Your task to perform on an android device: Open accessibility settings Image 0: 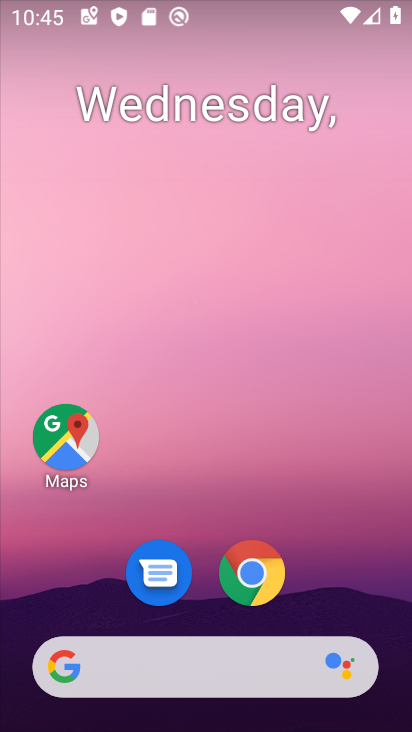
Step 0: drag from (210, 522) to (242, 23)
Your task to perform on an android device: Open accessibility settings Image 1: 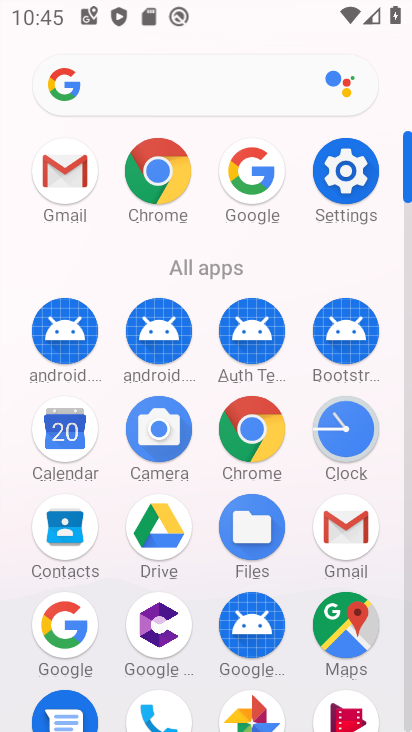
Step 1: click (345, 172)
Your task to perform on an android device: Open accessibility settings Image 2: 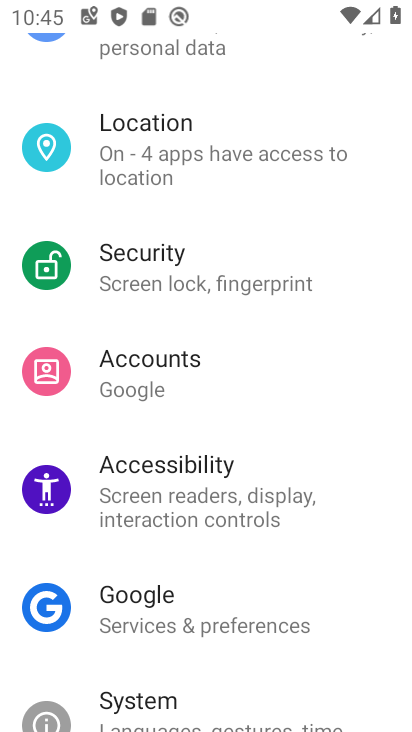
Step 2: click (196, 462)
Your task to perform on an android device: Open accessibility settings Image 3: 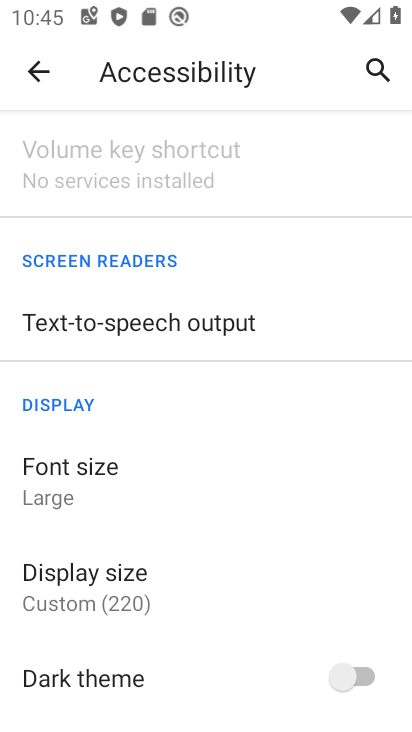
Step 3: task complete